Your task to perform on an android device: turn on the 12-hour format for clock Image 0: 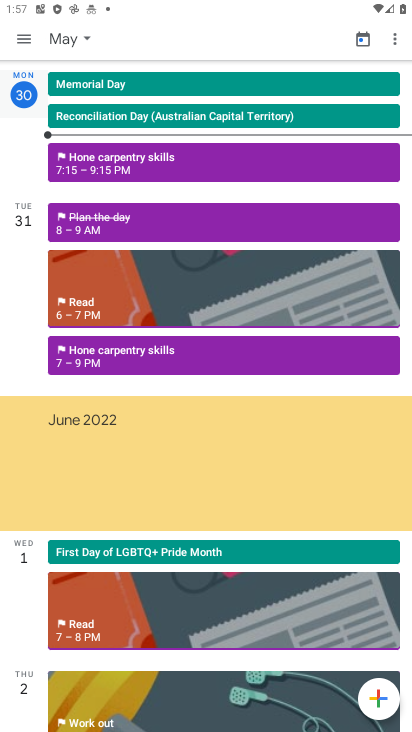
Step 0: press home button
Your task to perform on an android device: turn on the 12-hour format for clock Image 1: 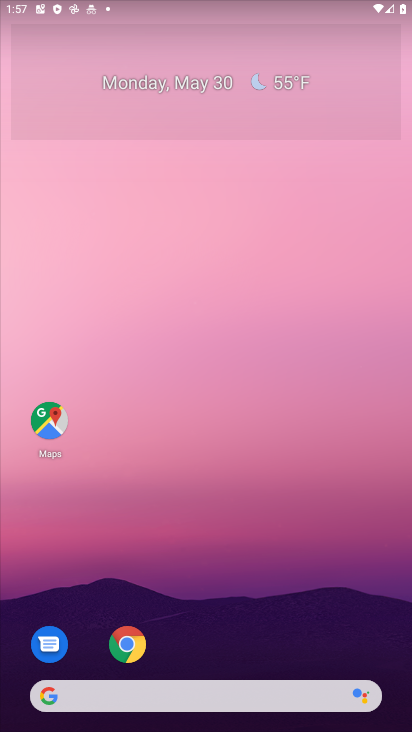
Step 1: drag from (331, 646) to (181, 2)
Your task to perform on an android device: turn on the 12-hour format for clock Image 2: 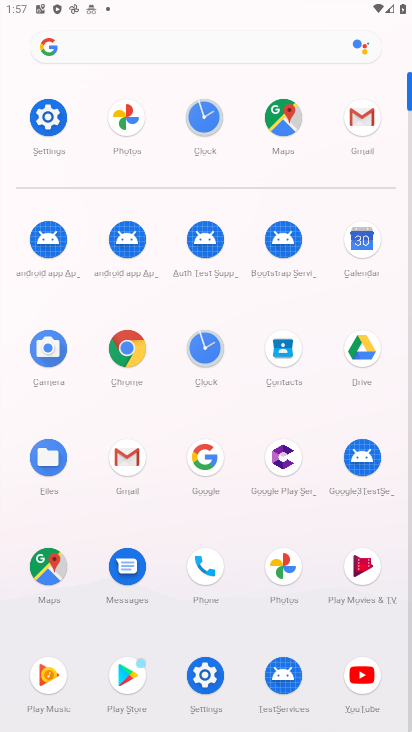
Step 2: click (47, 117)
Your task to perform on an android device: turn on the 12-hour format for clock Image 3: 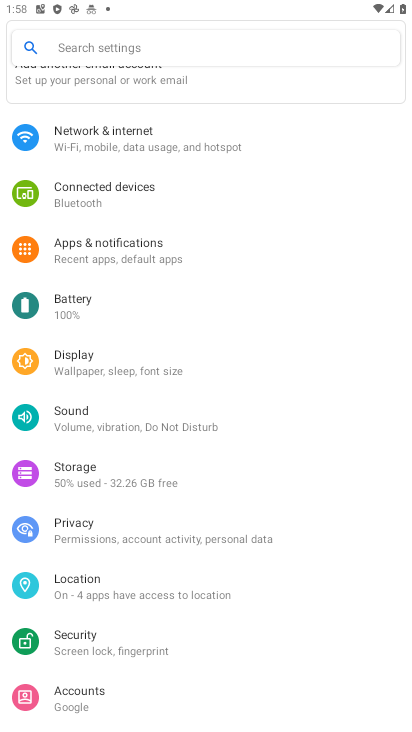
Step 3: press back button
Your task to perform on an android device: turn on the 12-hour format for clock Image 4: 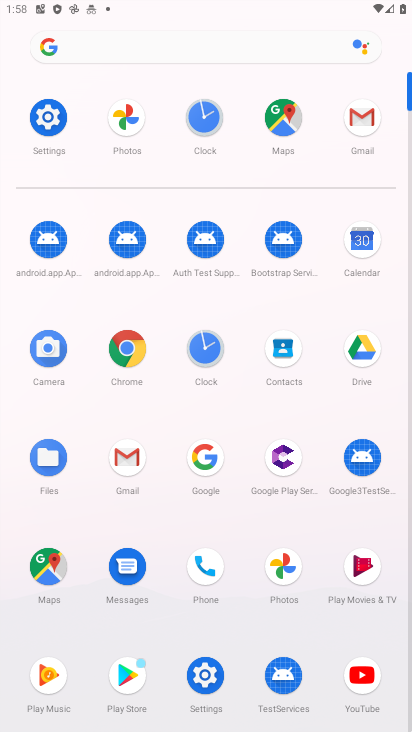
Step 4: click (51, 125)
Your task to perform on an android device: turn on the 12-hour format for clock Image 5: 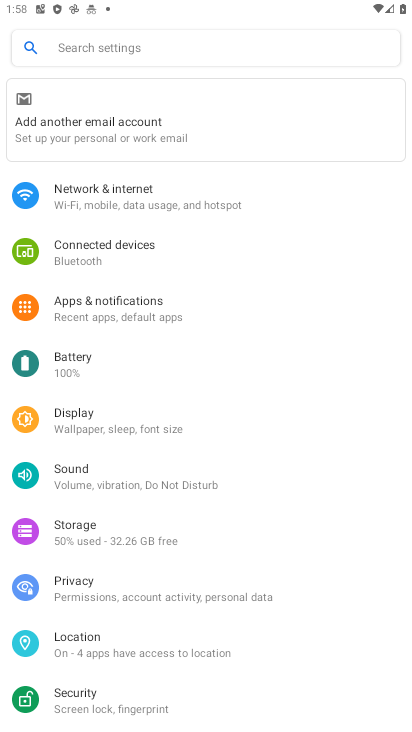
Step 5: press home button
Your task to perform on an android device: turn on the 12-hour format for clock Image 6: 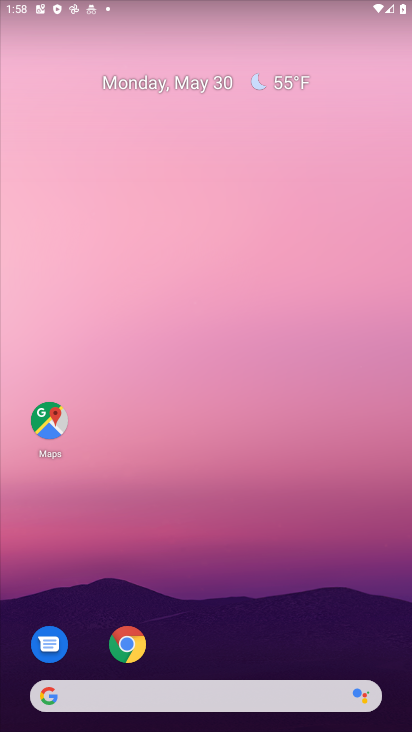
Step 6: drag from (244, 604) to (234, 78)
Your task to perform on an android device: turn on the 12-hour format for clock Image 7: 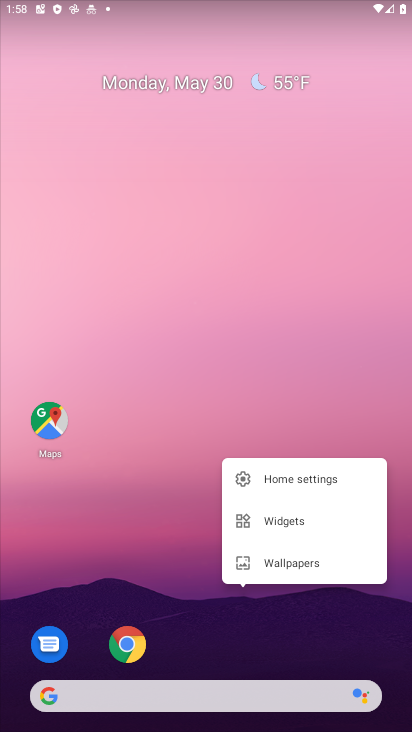
Step 7: click (173, 360)
Your task to perform on an android device: turn on the 12-hour format for clock Image 8: 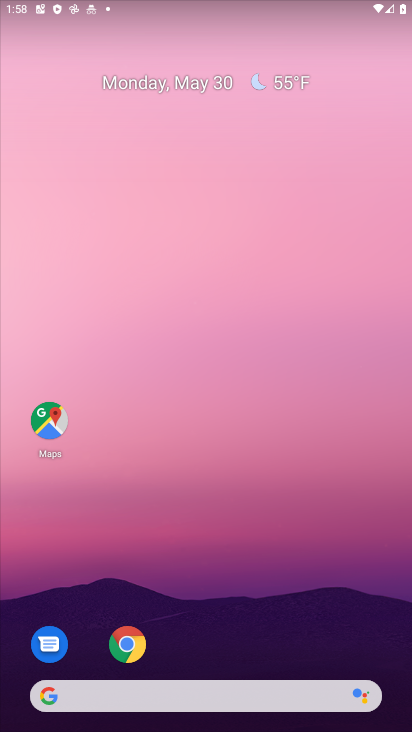
Step 8: drag from (264, 483) to (176, 61)
Your task to perform on an android device: turn on the 12-hour format for clock Image 9: 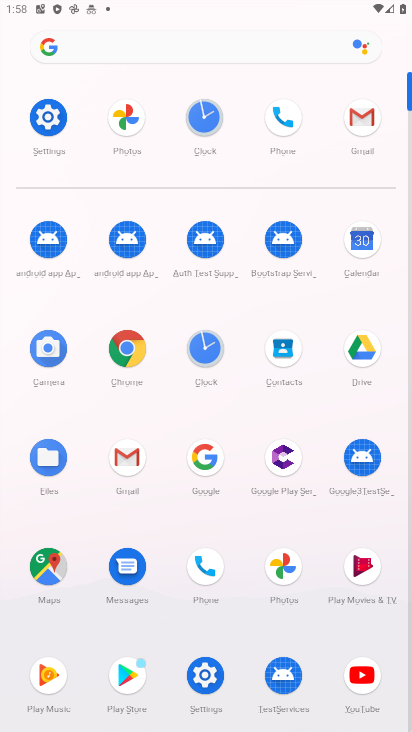
Step 9: click (210, 147)
Your task to perform on an android device: turn on the 12-hour format for clock Image 10: 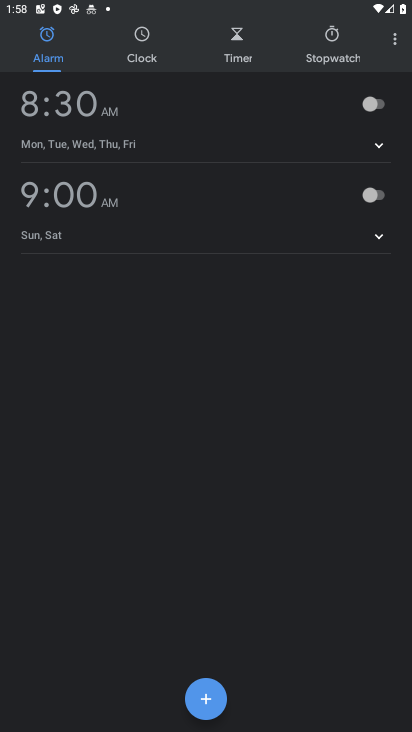
Step 10: task complete